Your task to perform on an android device: Open Android settings Image 0: 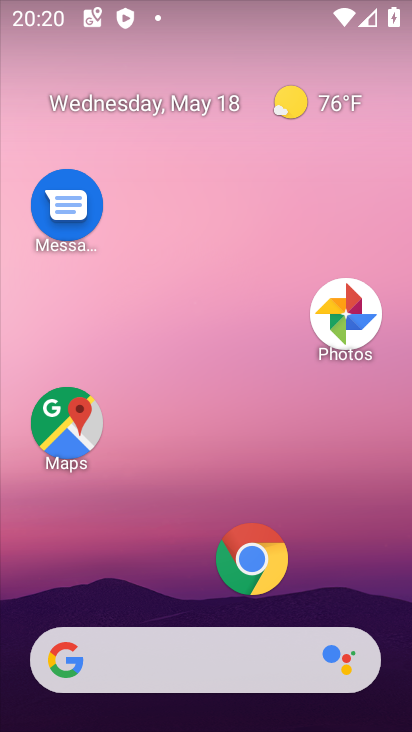
Step 0: drag from (205, 607) to (162, 44)
Your task to perform on an android device: Open Android settings Image 1: 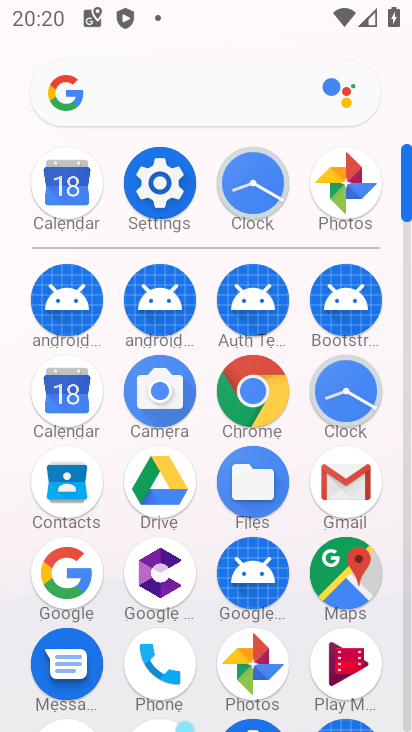
Step 1: click (152, 179)
Your task to perform on an android device: Open Android settings Image 2: 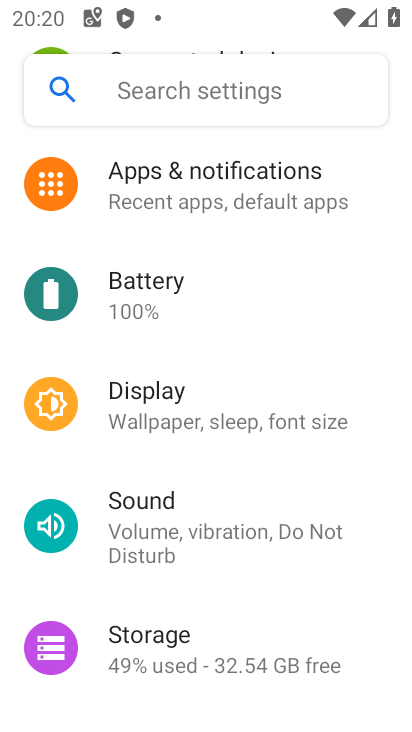
Step 2: drag from (255, 662) to (296, 199)
Your task to perform on an android device: Open Android settings Image 3: 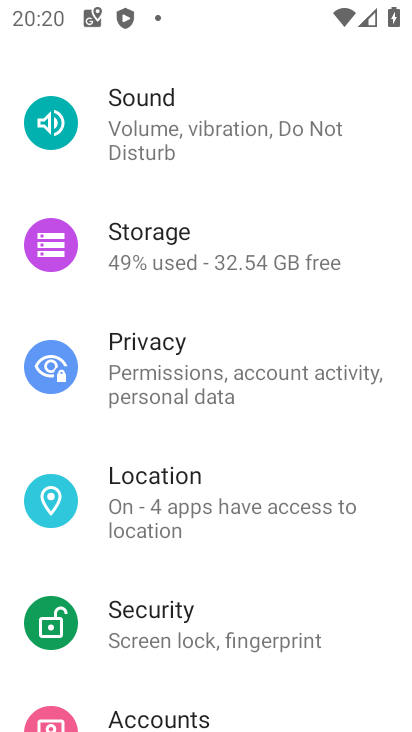
Step 3: drag from (270, 639) to (144, 44)
Your task to perform on an android device: Open Android settings Image 4: 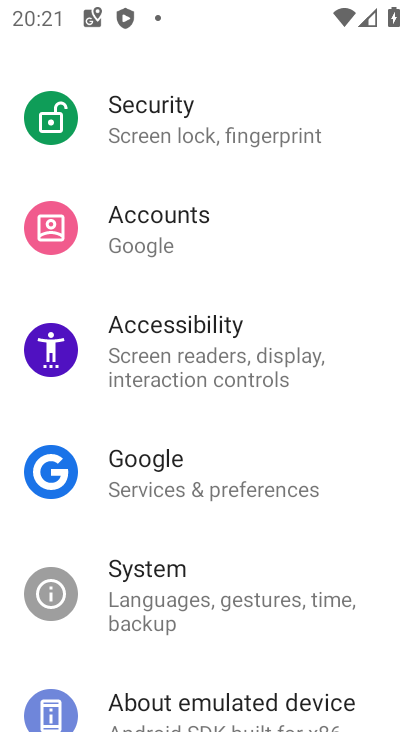
Step 4: click (166, 716)
Your task to perform on an android device: Open Android settings Image 5: 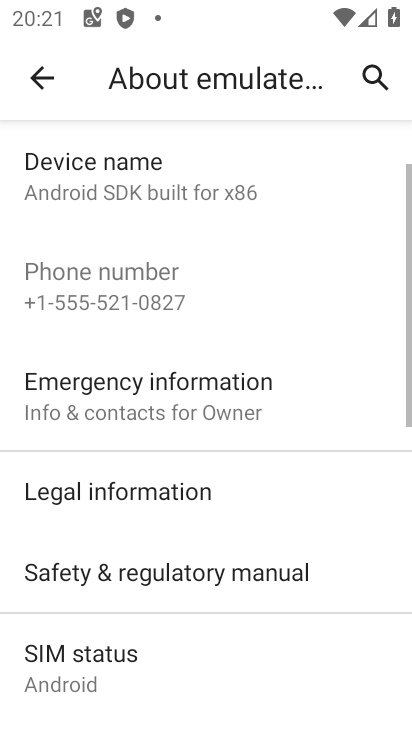
Step 5: task complete